Your task to perform on an android device: Go to network settings Image 0: 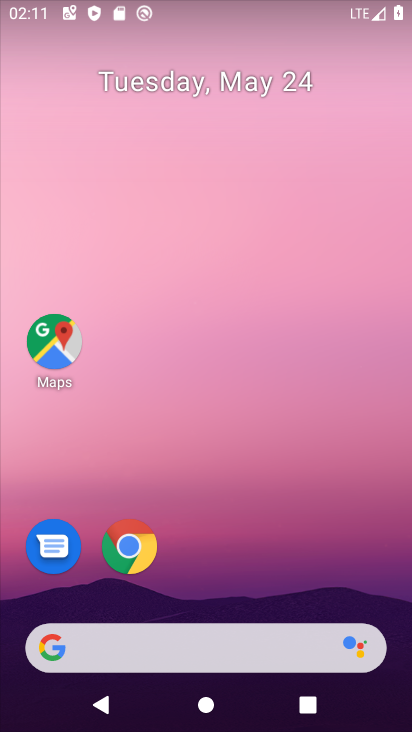
Step 0: drag from (198, 599) to (258, 54)
Your task to perform on an android device: Go to network settings Image 1: 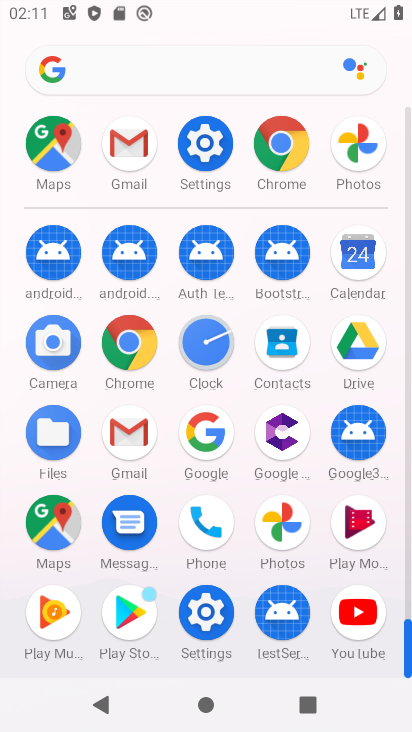
Step 1: click (213, 149)
Your task to perform on an android device: Go to network settings Image 2: 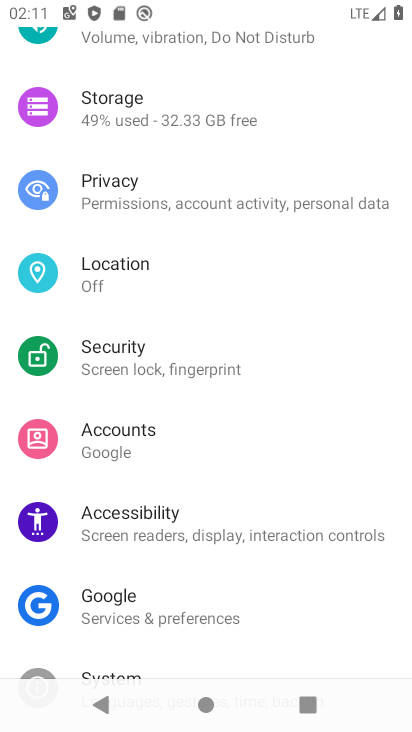
Step 2: drag from (191, 170) to (335, 729)
Your task to perform on an android device: Go to network settings Image 3: 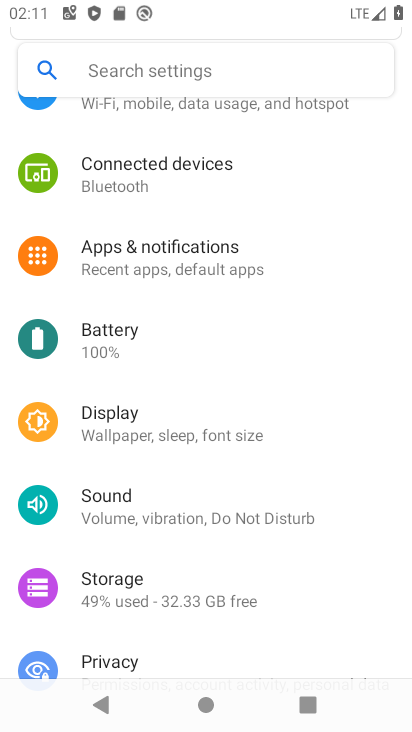
Step 3: drag from (158, 191) to (279, 729)
Your task to perform on an android device: Go to network settings Image 4: 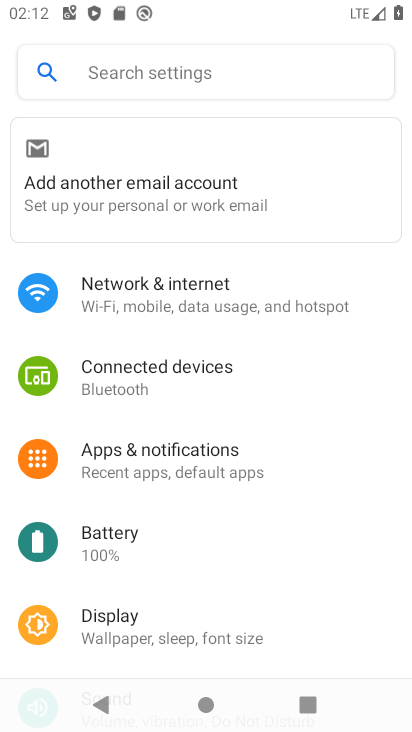
Step 4: click (179, 304)
Your task to perform on an android device: Go to network settings Image 5: 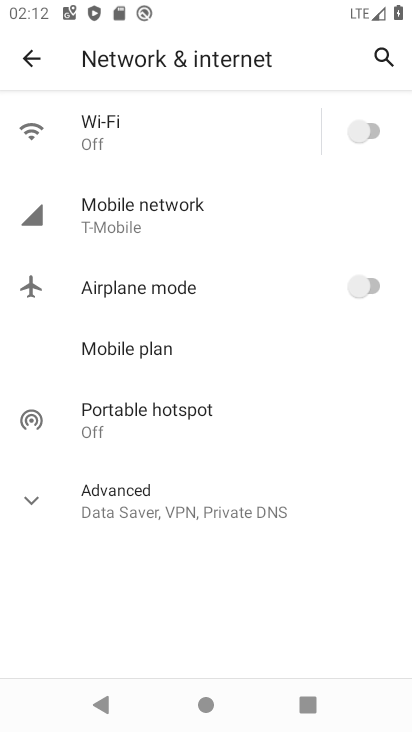
Step 5: task complete